Your task to perform on an android device: Empty the shopping cart on walmart. Add "asus rog" to the cart on walmart, then select checkout. Image 0: 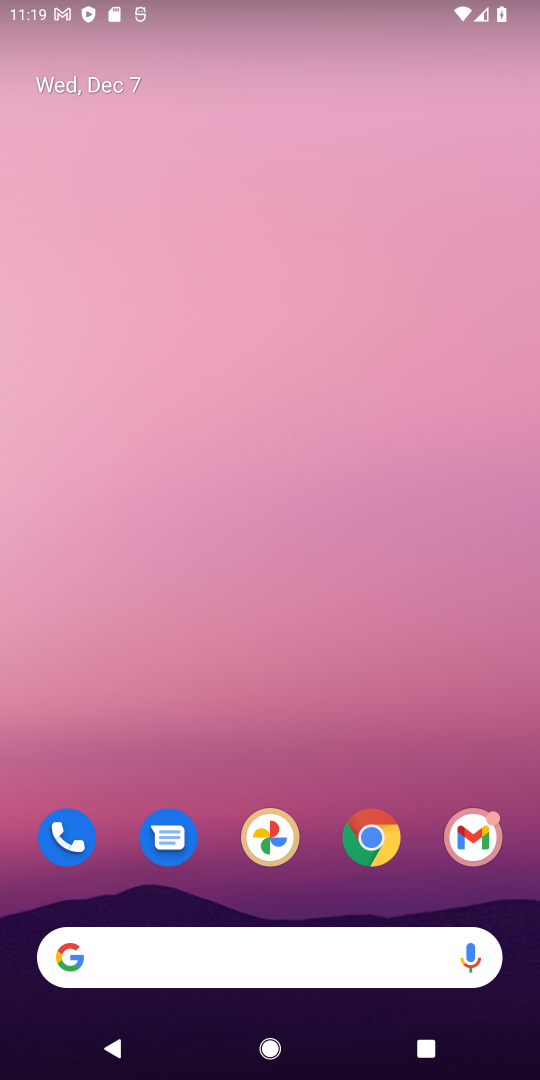
Step 0: click (379, 830)
Your task to perform on an android device: Empty the shopping cart on walmart. Add "asus rog" to the cart on walmart, then select checkout. Image 1: 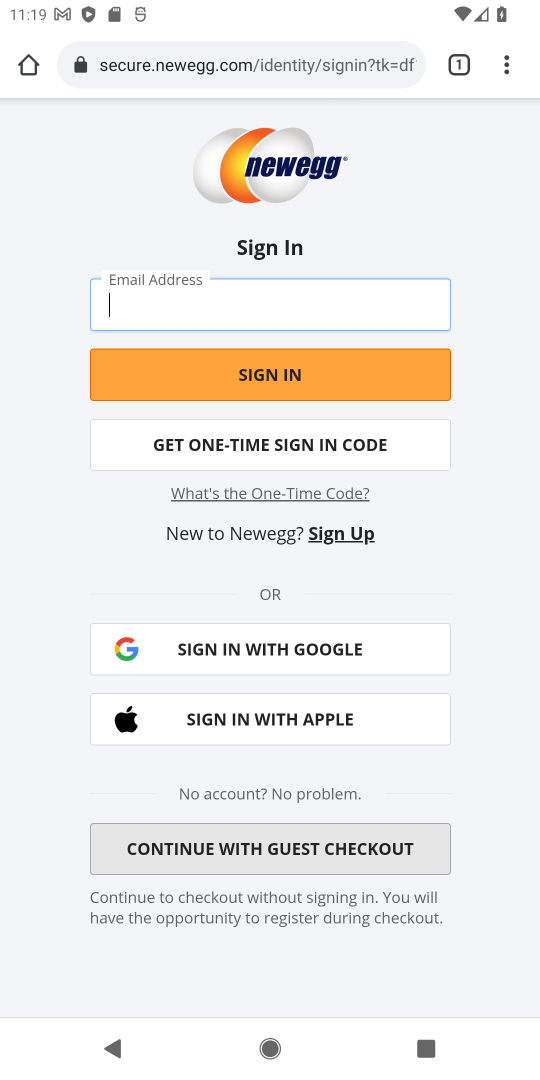
Step 1: click (347, 52)
Your task to perform on an android device: Empty the shopping cart on walmart. Add "asus rog" to the cart on walmart, then select checkout. Image 2: 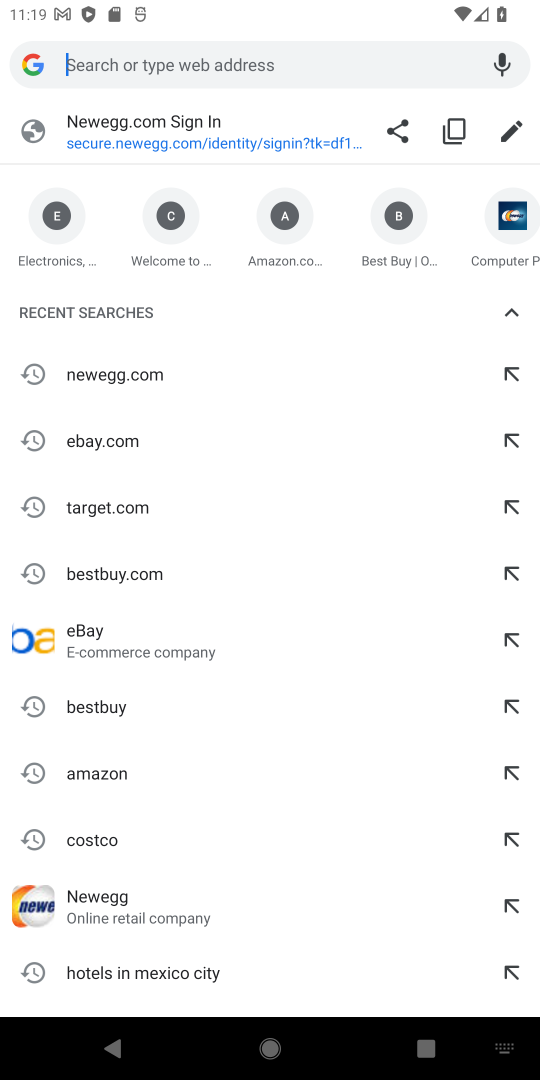
Step 2: type "walmart"
Your task to perform on an android device: Empty the shopping cart on walmart. Add "asus rog" to the cart on walmart, then select checkout. Image 3: 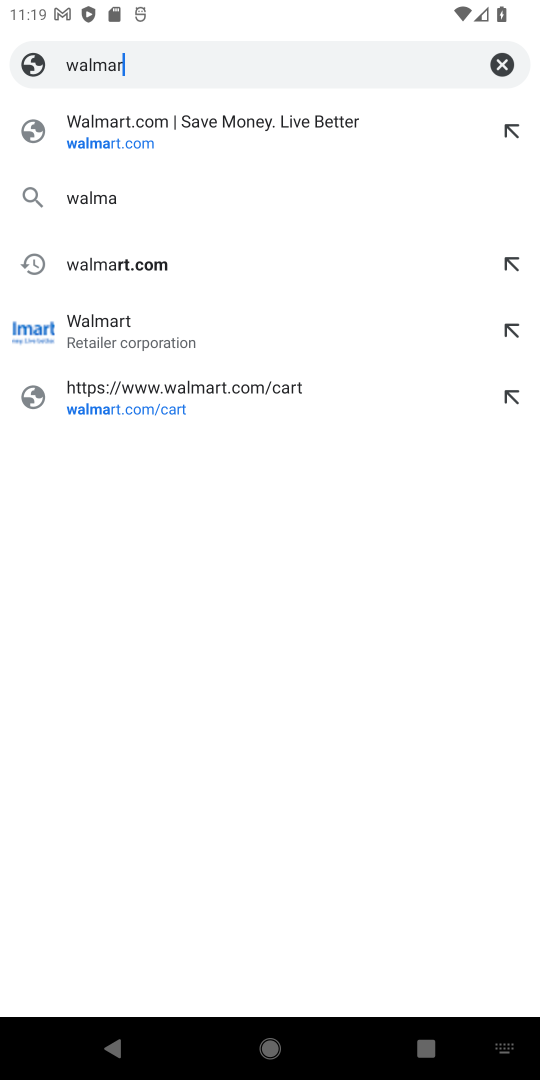
Step 3: press enter
Your task to perform on an android device: Empty the shopping cart on walmart. Add "asus rog" to the cart on walmart, then select checkout. Image 4: 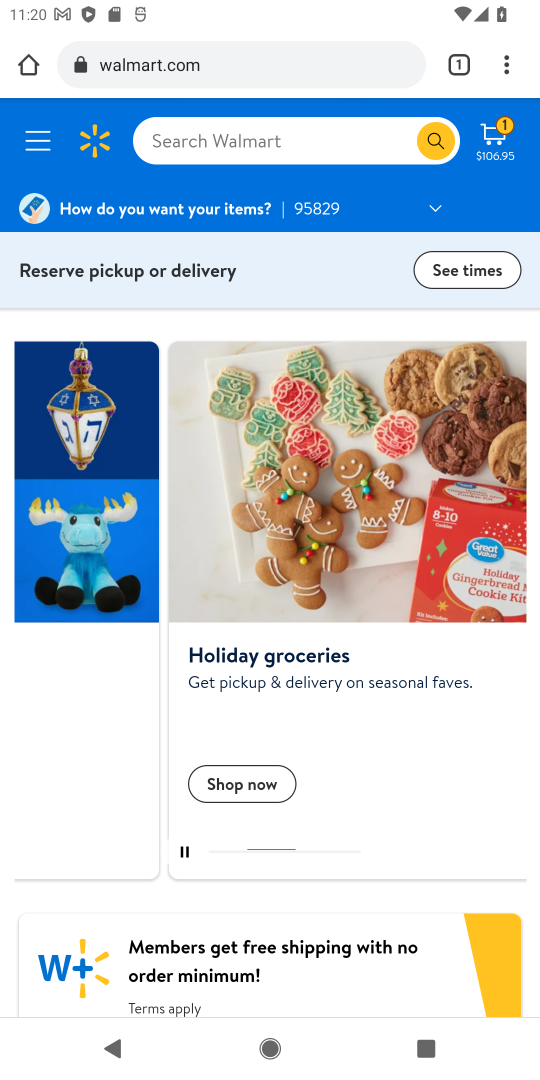
Step 4: click (500, 135)
Your task to perform on an android device: Empty the shopping cart on walmart. Add "asus rog" to the cart on walmart, then select checkout. Image 5: 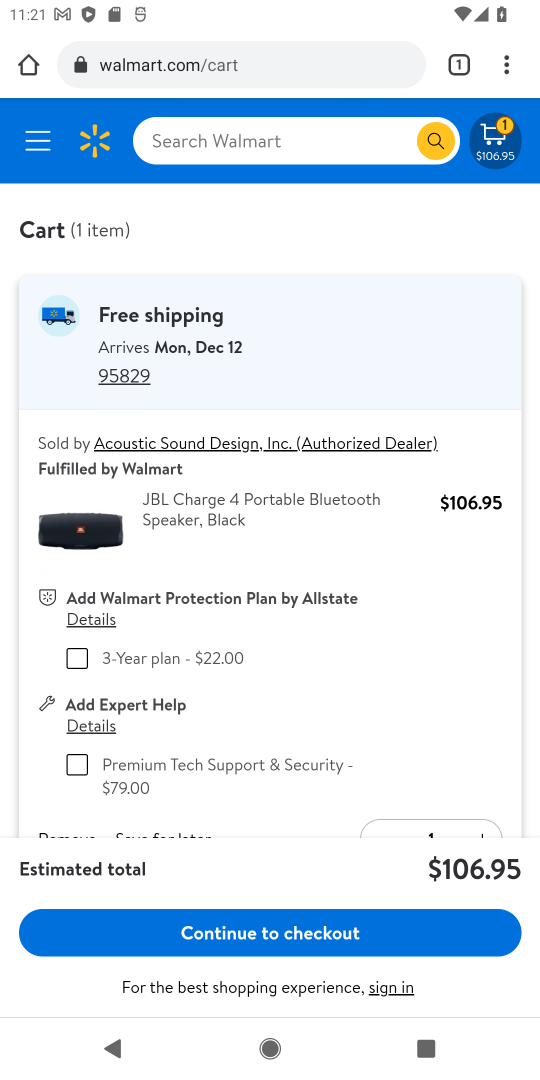
Step 5: drag from (246, 762) to (291, 564)
Your task to perform on an android device: Empty the shopping cart on walmart. Add "asus rog" to the cart on walmart, then select checkout. Image 6: 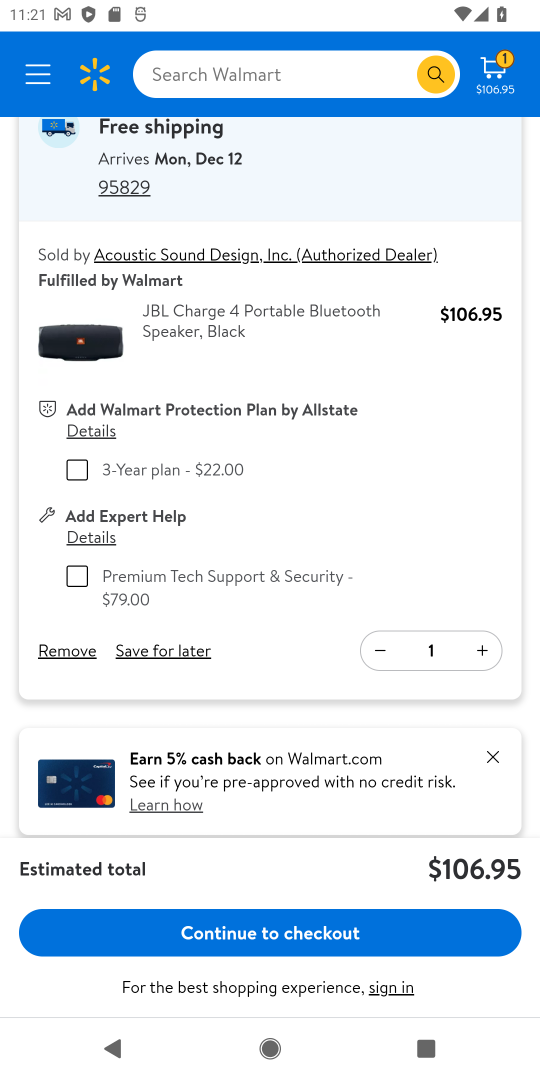
Step 6: click (75, 648)
Your task to perform on an android device: Empty the shopping cart on walmart. Add "asus rog" to the cart on walmart, then select checkout. Image 7: 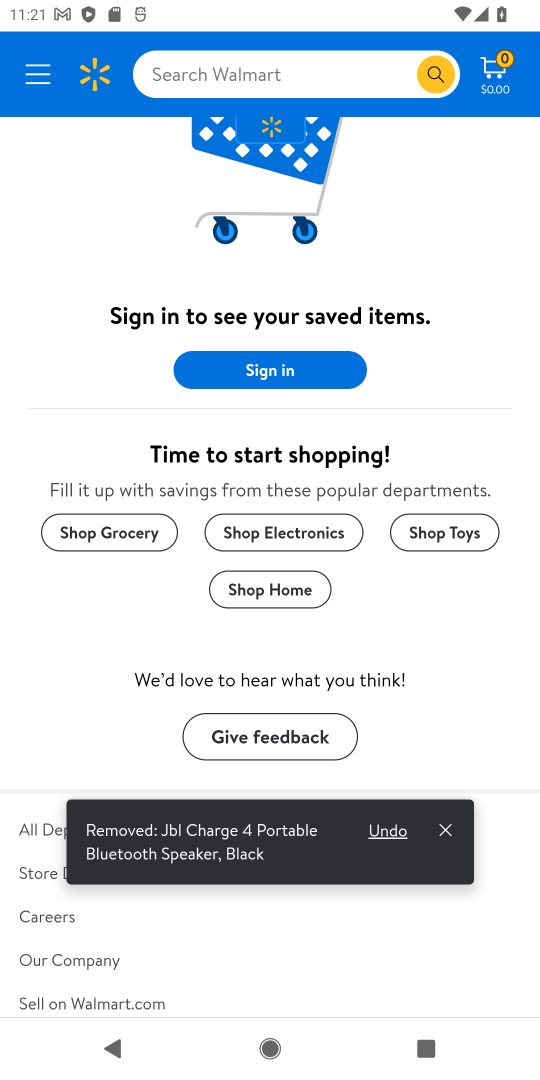
Step 7: drag from (411, 281) to (445, 686)
Your task to perform on an android device: Empty the shopping cart on walmart. Add "asus rog" to the cart on walmart, then select checkout. Image 8: 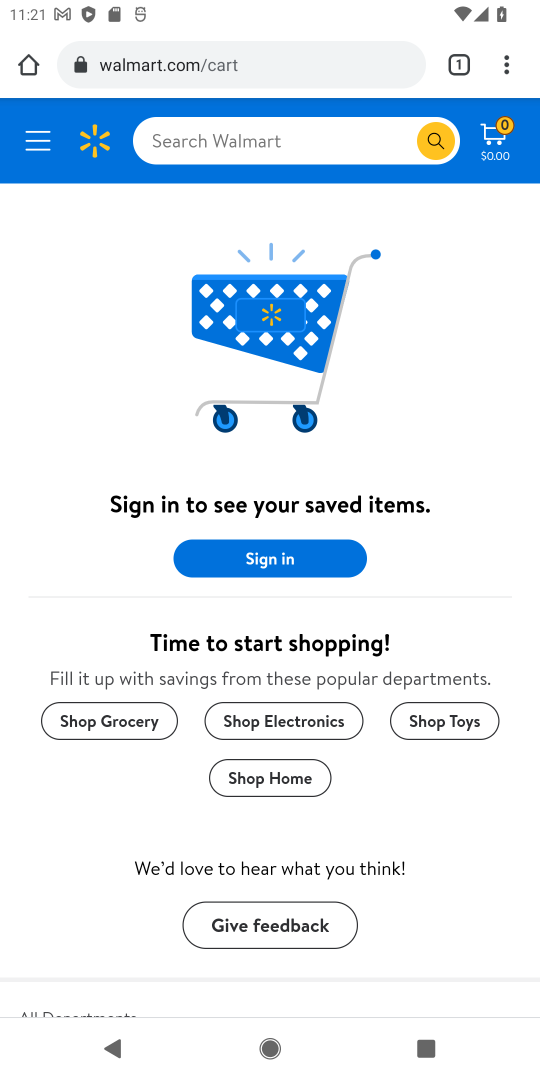
Step 8: click (371, 148)
Your task to perform on an android device: Empty the shopping cart on walmart. Add "asus rog" to the cart on walmart, then select checkout. Image 9: 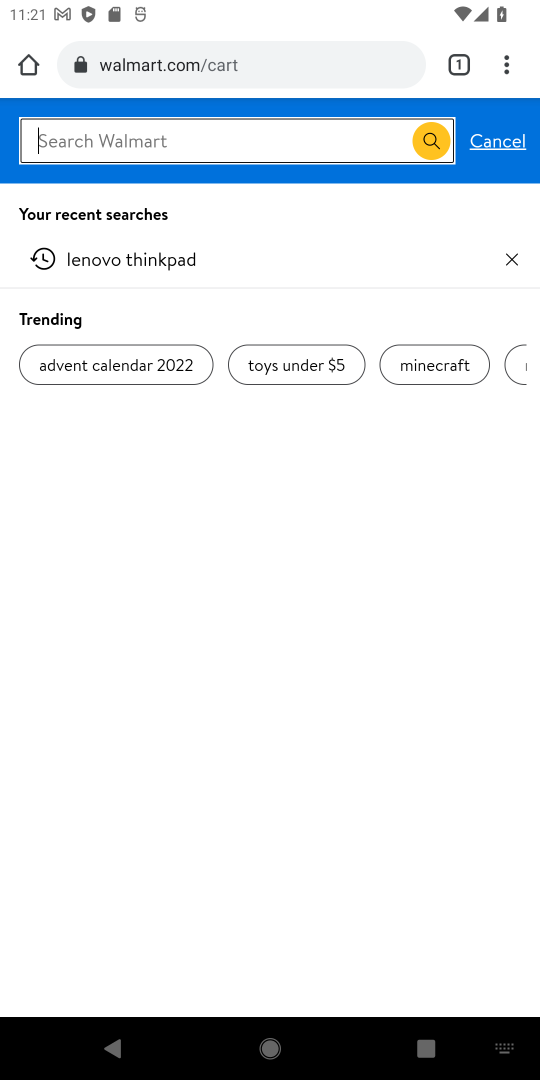
Step 9: type "asus rog"
Your task to perform on an android device: Empty the shopping cart on walmart. Add "asus rog" to the cart on walmart, then select checkout. Image 10: 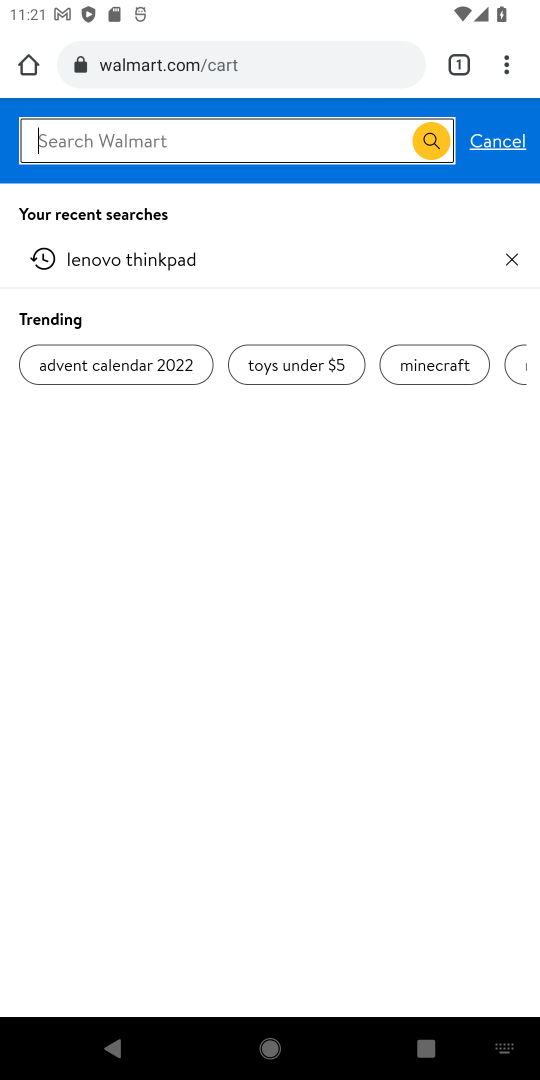
Step 10: press enter
Your task to perform on an android device: Empty the shopping cart on walmart. Add "asus rog" to the cart on walmart, then select checkout. Image 11: 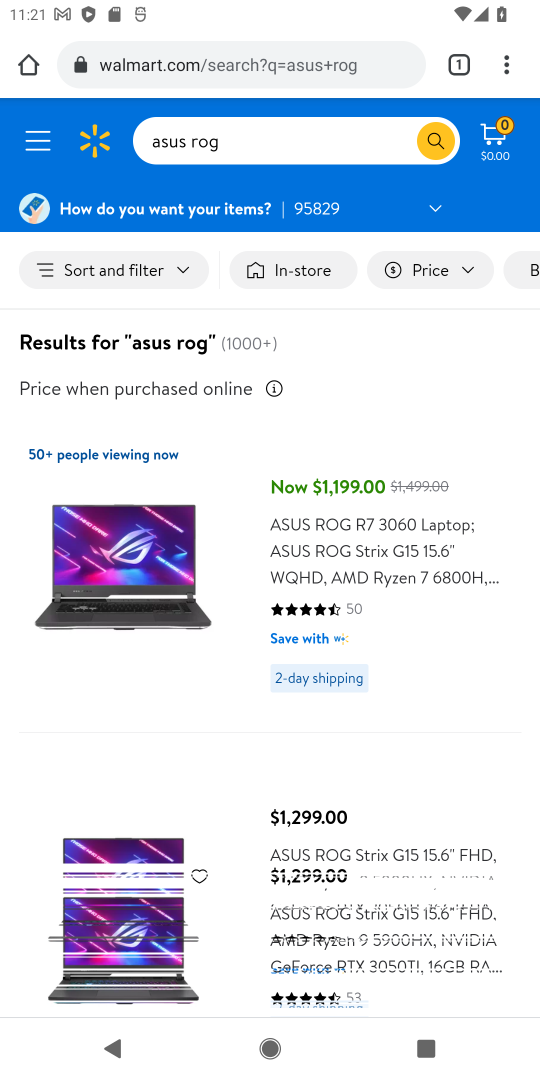
Step 11: click (119, 559)
Your task to perform on an android device: Empty the shopping cart on walmart. Add "asus rog" to the cart on walmart, then select checkout. Image 12: 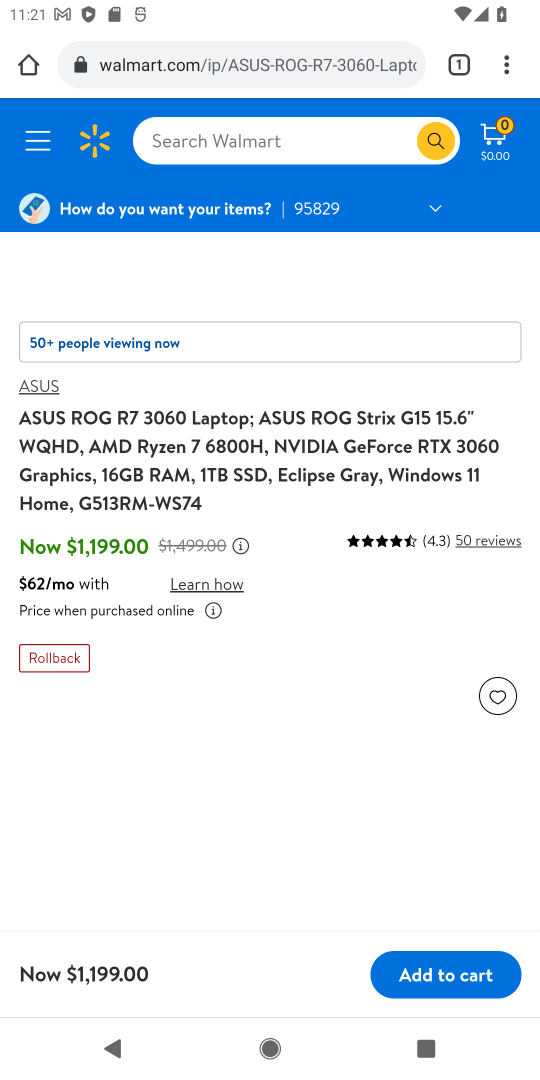
Step 12: click (468, 978)
Your task to perform on an android device: Empty the shopping cart on walmart. Add "asus rog" to the cart on walmart, then select checkout. Image 13: 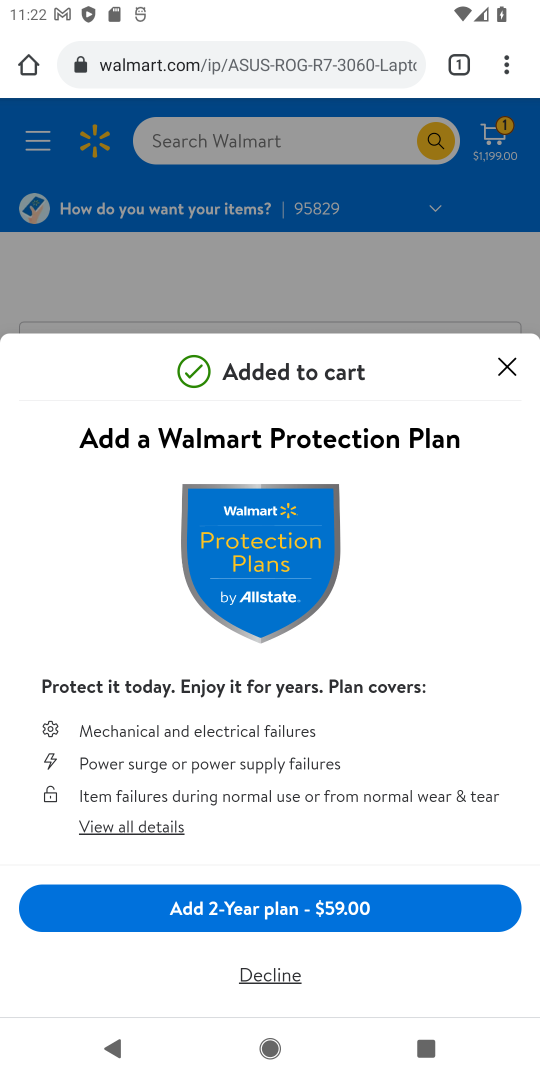
Step 13: click (509, 369)
Your task to perform on an android device: Empty the shopping cart on walmart. Add "asus rog" to the cart on walmart, then select checkout. Image 14: 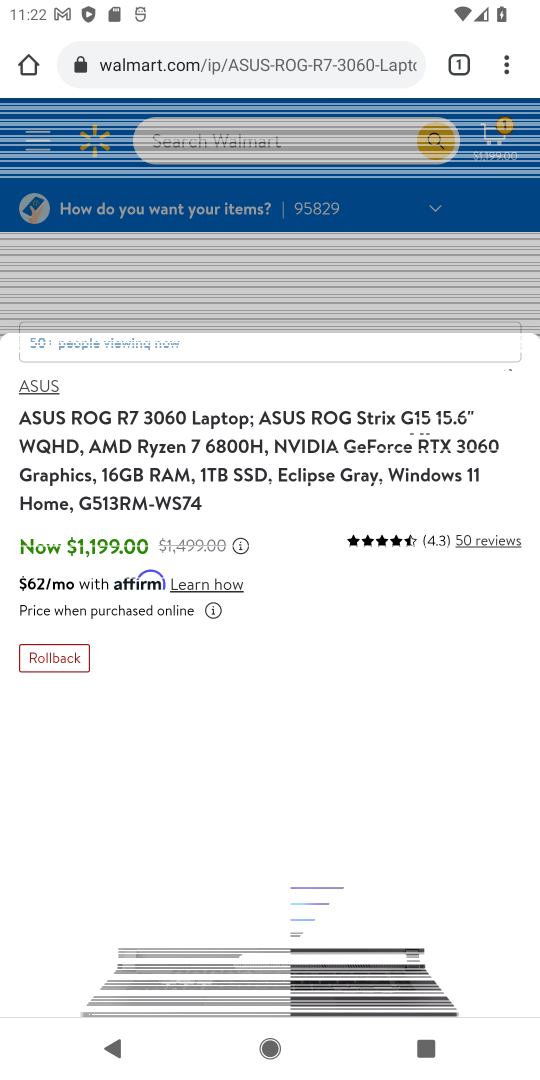
Step 14: click (501, 140)
Your task to perform on an android device: Empty the shopping cart on walmart. Add "asus rog" to the cart on walmart, then select checkout. Image 15: 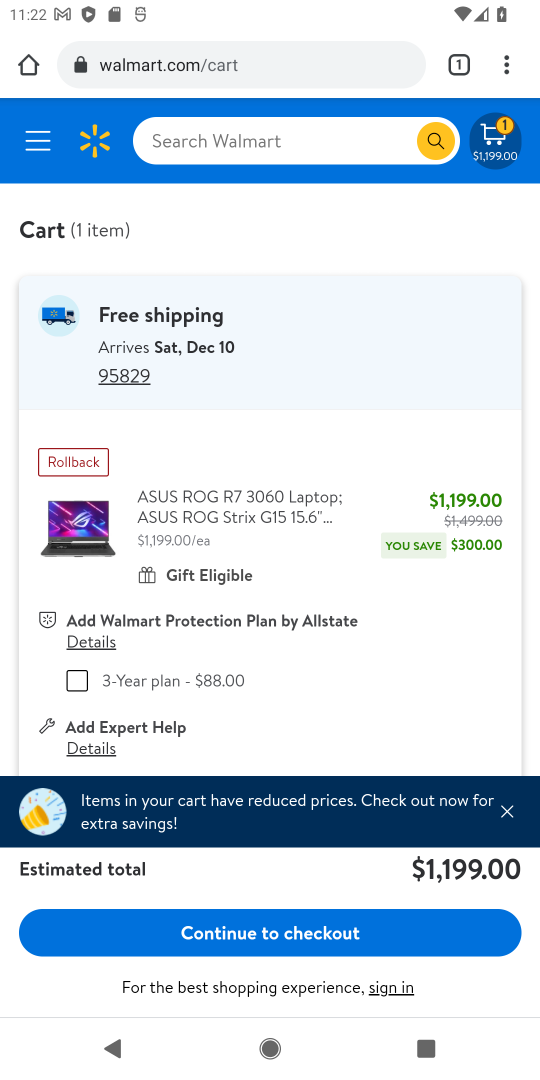
Step 15: drag from (368, 663) to (490, 347)
Your task to perform on an android device: Empty the shopping cart on walmart. Add "asus rog" to the cart on walmart, then select checkout. Image 16: 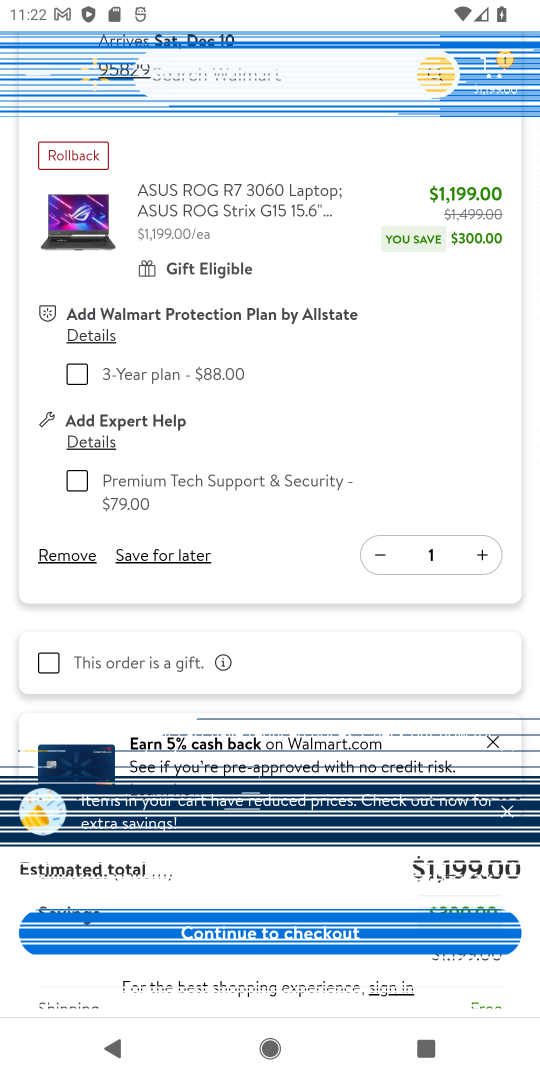
Step 16: click (319, 933)
Your task to perform on an android device: Empty the shopping cart on walmart. Add "asus rog" to the cart on walmart, then select checkout. Image 17: 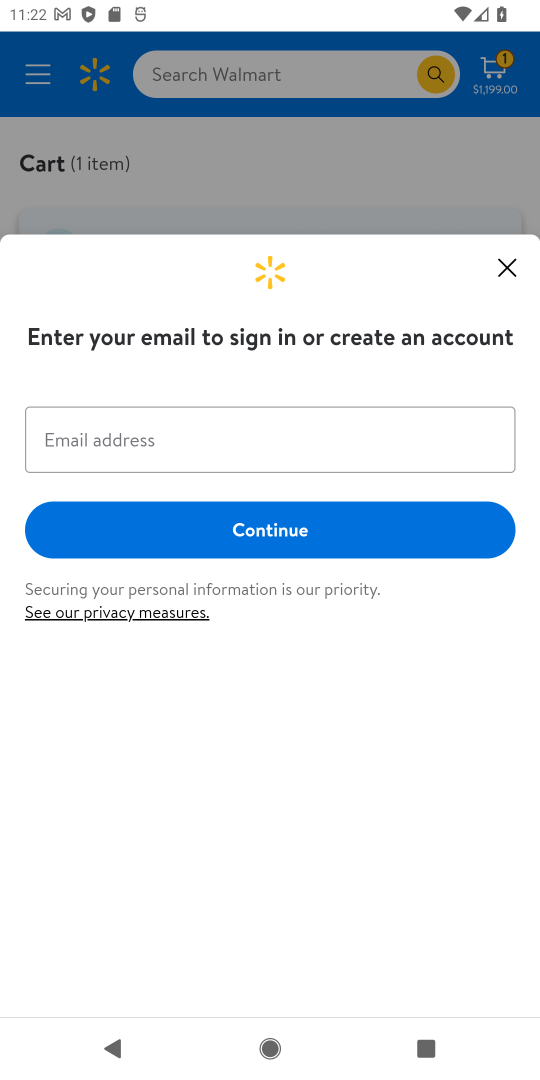
Step 17: task complete